Your task to perform on an android device: turn off priority inbox in the gmail app Image 0: 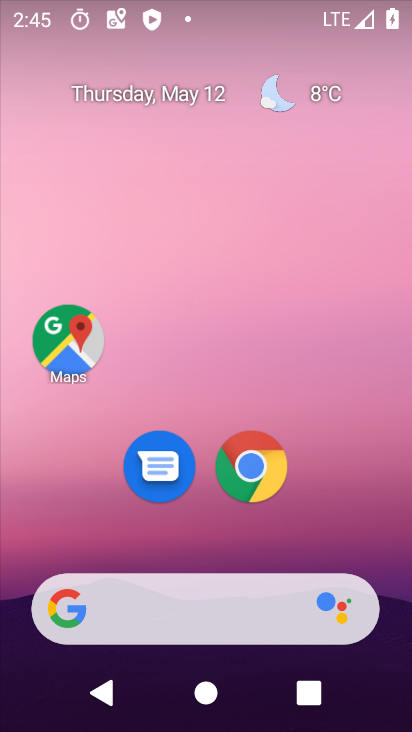
Step 0: drag from (285, 526) to (119, 80)
Your task to perform on an android device: turn off priority inbox in the gmail app Image 1: 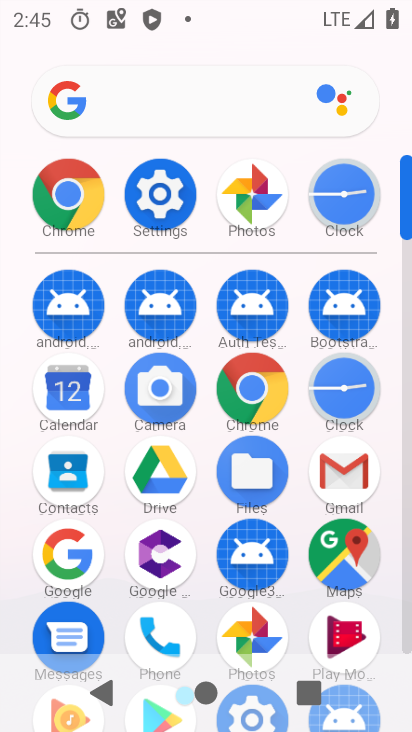
Step 1: click (354, 473)
Your task to perform on an android device: turn off priority inbox in the gmail app Image 2: 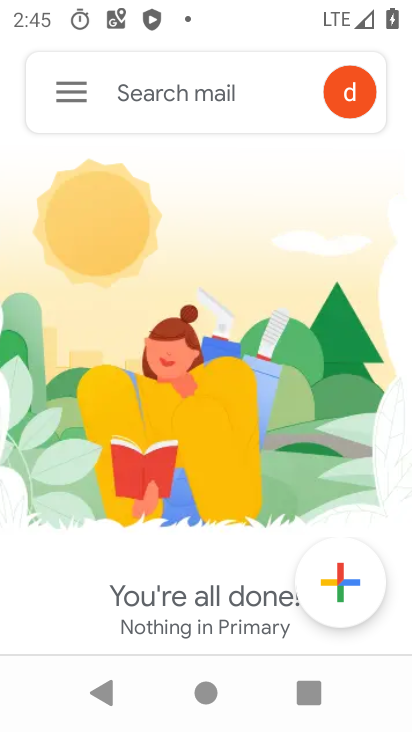
Step 2: click (78, 95)
Your task to perform on an android device: turn off priority inbox in the gmail app Image 3: 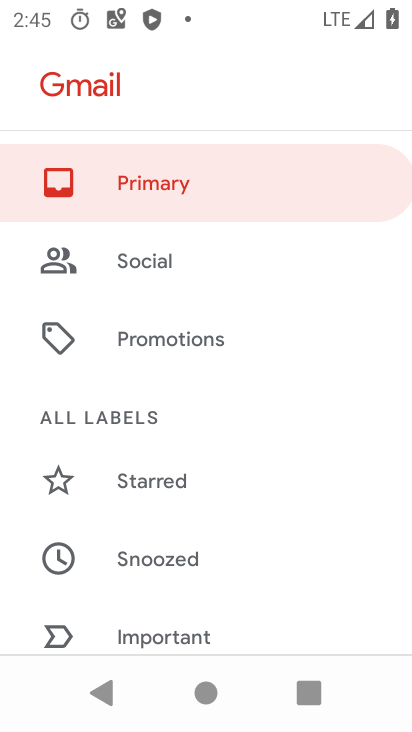
Step 3: drag from (160, 617) to (130, 82)
Your task to perform on an android device: turn off priority inbox in the gmail app Image 4: 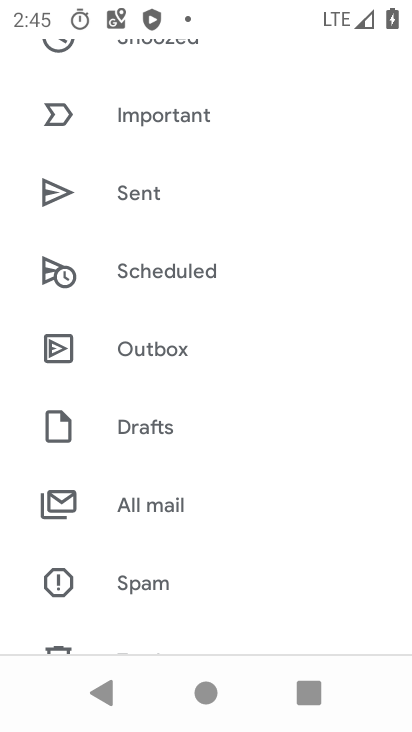
Step 4: drag from (248, 612) to (178, 160)
Your task to perform on an android device: turn off priority inbox in the gmail app Image 5: 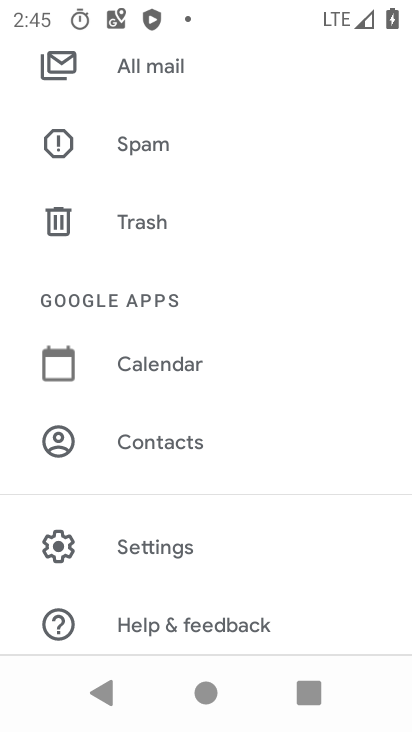
Step 5: click (137, 546)
Your task to perform on an android device: turn off priority inbox in the gmail app Image 6: 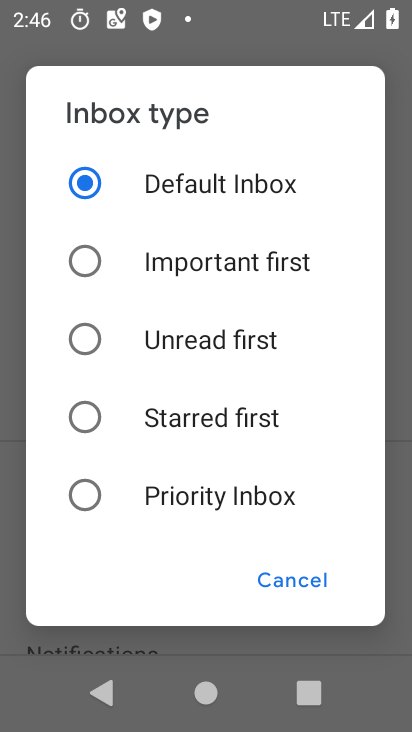
Step 6: task complete